Your task to perform on an android device: Do I have any events tomorrow? Image 0: 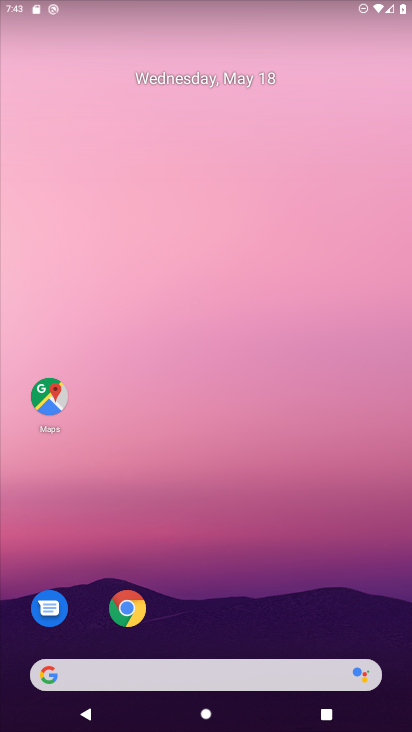
Step 0: drag from (385, 632) to (364, 186)
Your task to perform on an android device: Do I have any events tomorrow? Image 1: 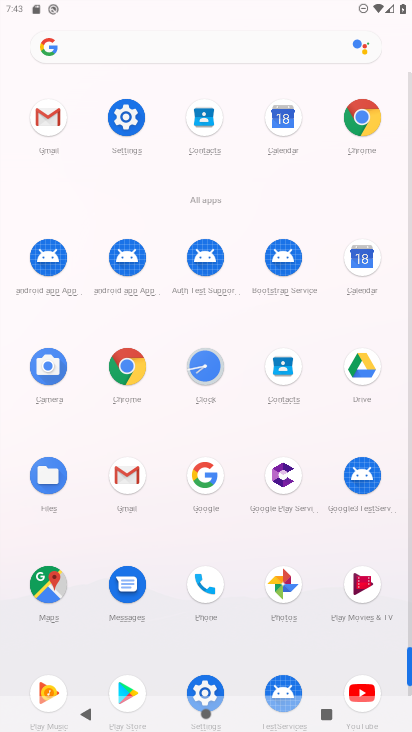
Step 1: click (365, 237)
Your task to perform on an android device: Do I have any events tomorrow? Image 2: 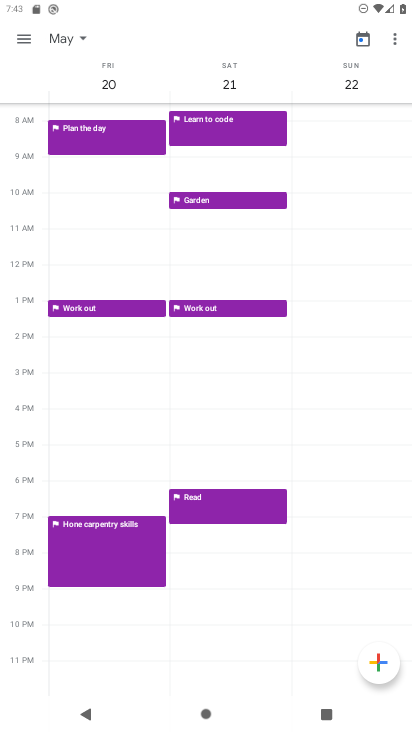
Step 2: click (61, 34)
Your task to perform on an android device: Do I have any events tomorrow? Image 3: 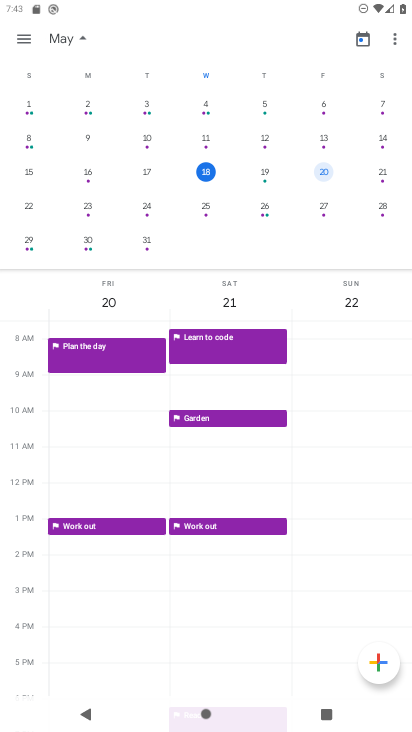
Step 3: click (209, 173)
Your task to perform on an android device: Do I have any events tomorrow? Image 4: 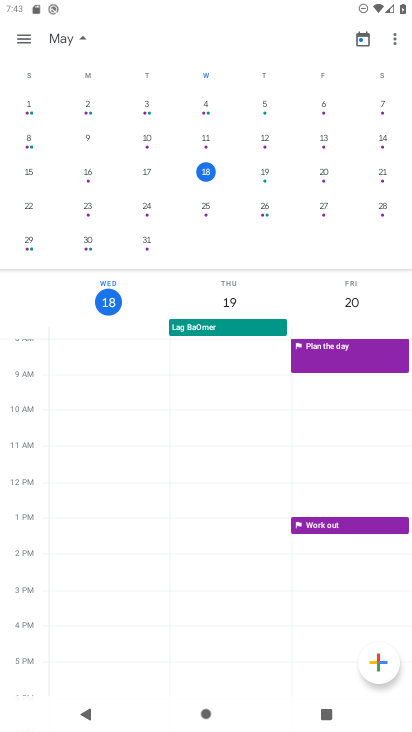
Step 4: click (265, 170)
Your task to perform on an android device: Do I have any events tomorrow? Image 5: 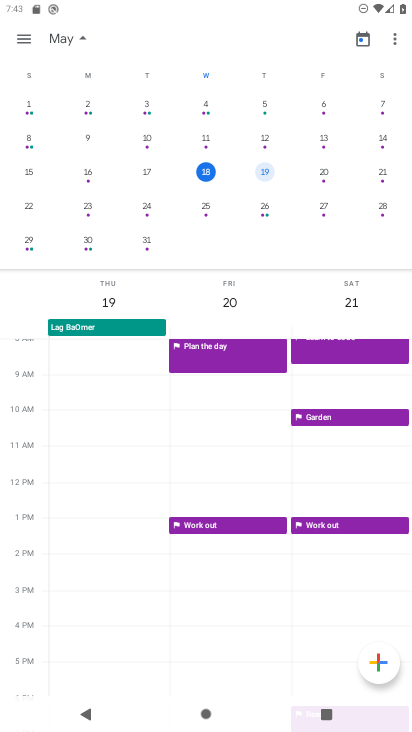
Step 5: click (23, 35)
Your task to perform on an android device: Do I have any events tomorrow? Image 6: 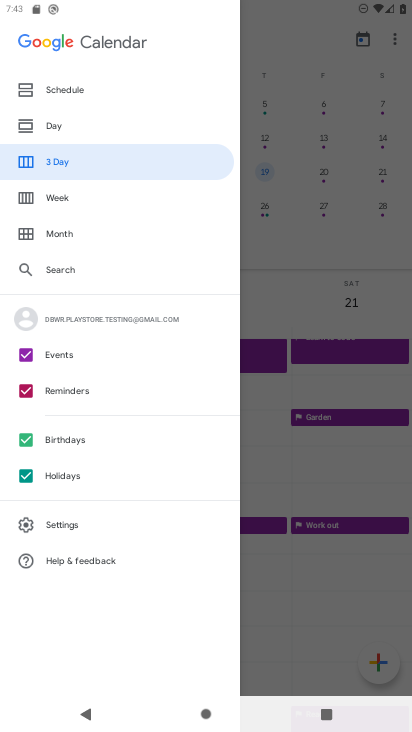
Step 6: click (81, 129)
Your task to perform on an android device: Do I have any events tomorrow? Image 7: 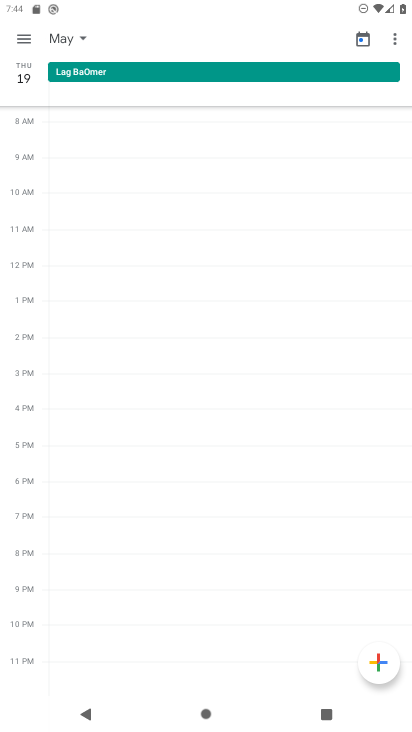
Step 7: task complete